Your task to perform on an android device: visit the assistant section in the google photos Image 0: 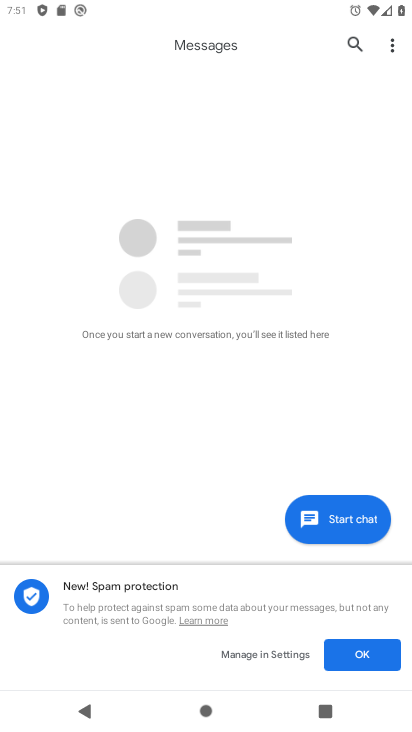
Step 0: press home button
Your task to perform on an android device: visit the assistant section in the google photos Image 1: 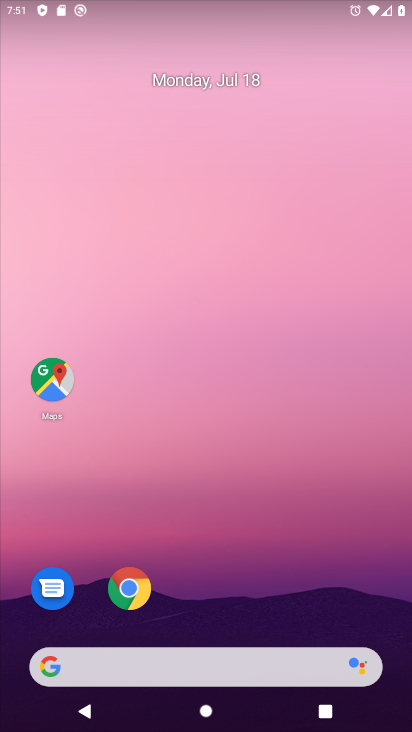
Step 1: drag from (200, 583) to (203, 13)
Your task to perform on an android device: visit the assistant section in the google photos Image 2: 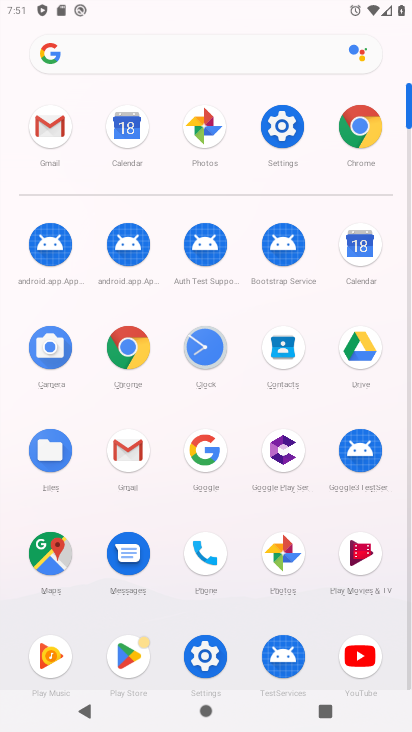
Step 2: click (291, 551)
Your task to perform on an android device: visit the assistant section in the google photos Image 3: 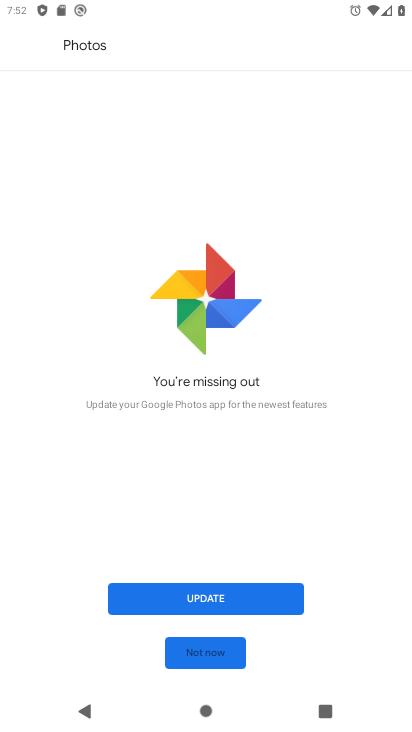
Step 3: click (234, 652)
Your task to perform on an android device: visit the assistant section in the google photos Image 4: 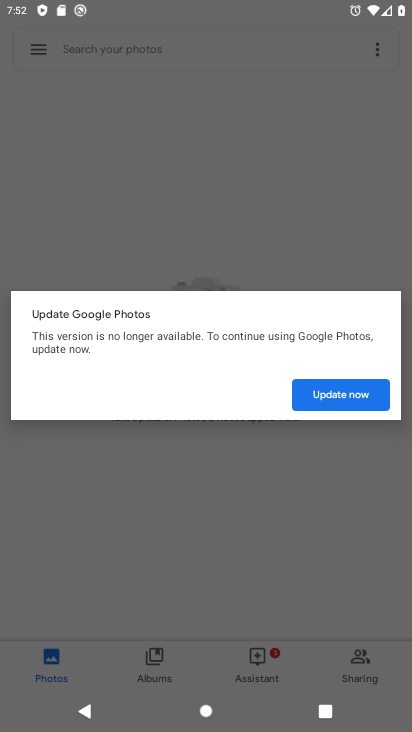
Step 4: click (367, 391)
Your task to perform on an android device: visit the assistant section in the google photos Image 5: 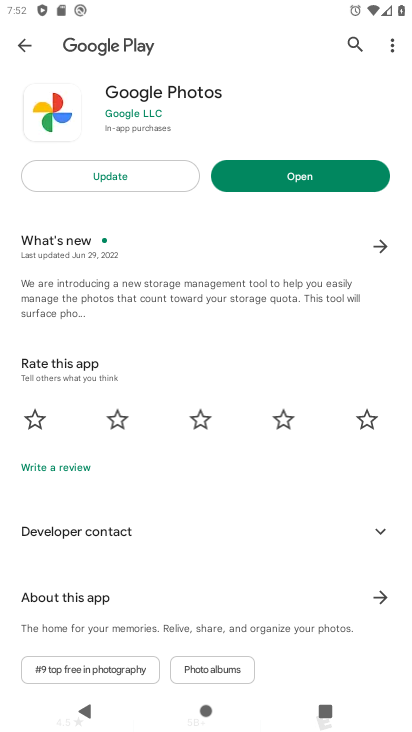
Step 5: click (286, 169)
Your task to perform on an android device: visit the assistant section in the google photos Image 6: 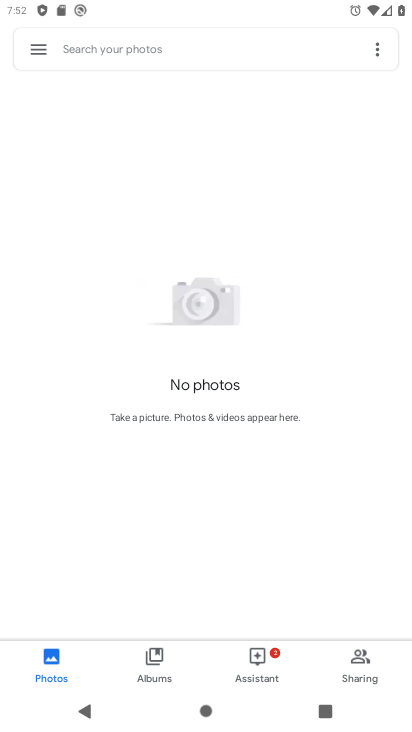
Step 6: click (251, 671)
Your task to perform on an android device: visit the assistant section in the google photos Image 7: 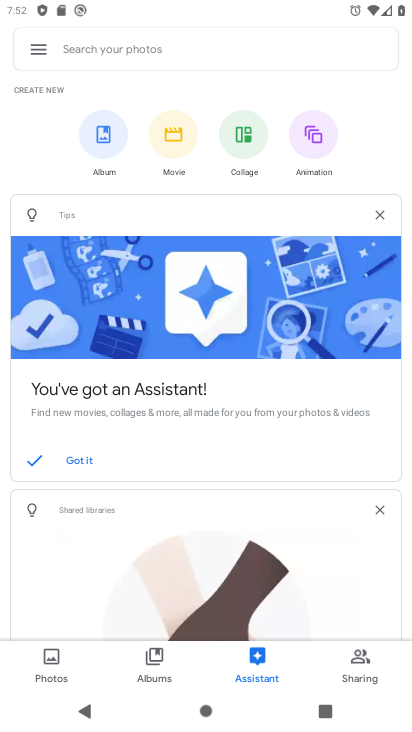
Step 7: task complete